Your task to perform on an android device: Open Chrome and go to settings Image 0: 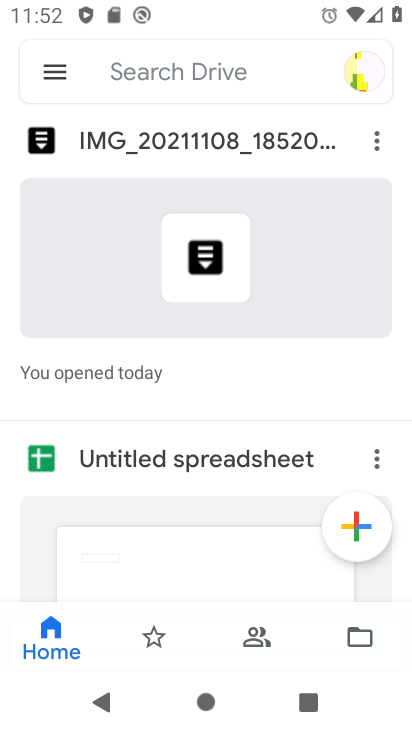
Step 0: press home button
Your task to perform on an android device: Open Chrome and go to settings Image 1: 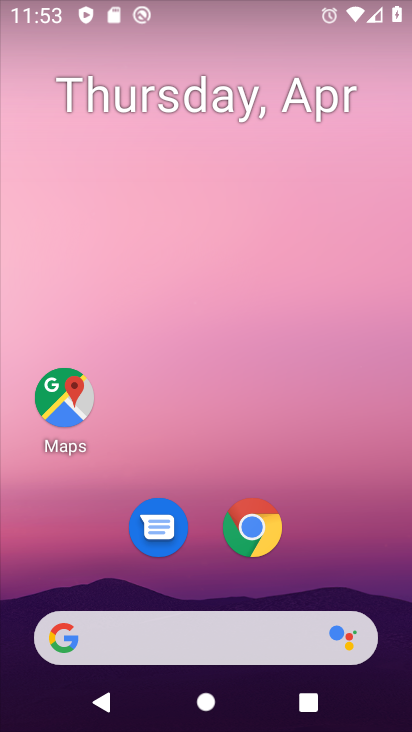
Step 1: click (241, 541)
Your task to perform on an android device: Open Chrome and go to settings Image 2: 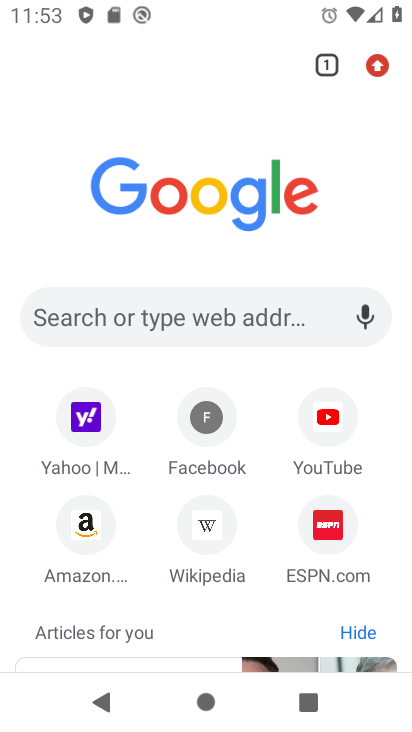
Step 2: drag from (373, 72) to (154, 623)
Your task to perform on an android device: Open Chrome and go to settings Image 3: 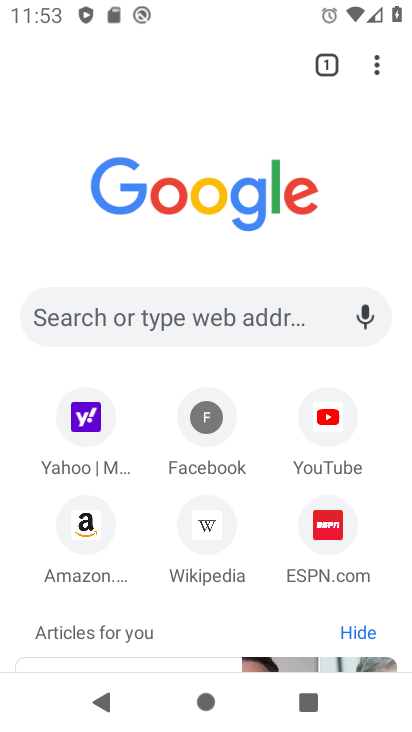
Step 3: click (377, 71)
Your task to perform on an android device: Open Chrome and go to settings Image 4: 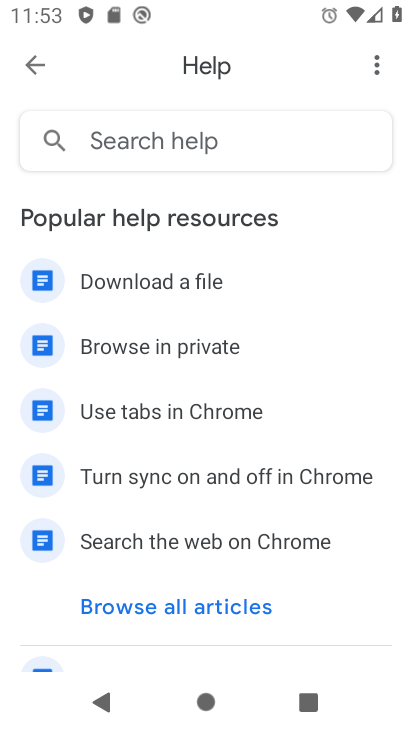
Step 4: click (377, 71)
Your task to perform on an android device: Open Chrome and go to settings Image 5: 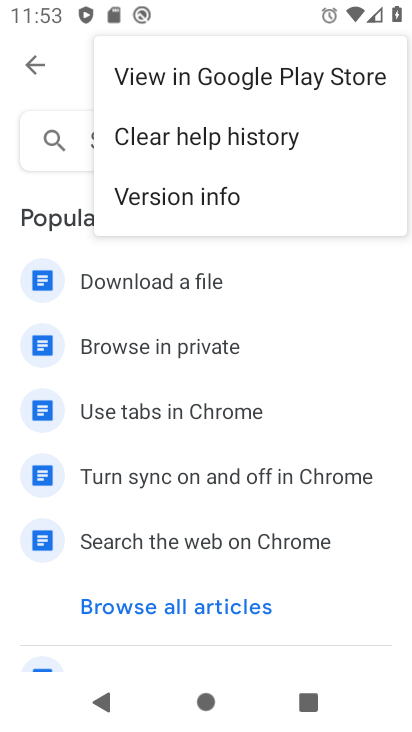
Step 5: task complete